Your task to perform on an android device: Open Yahoo.com Image 0: 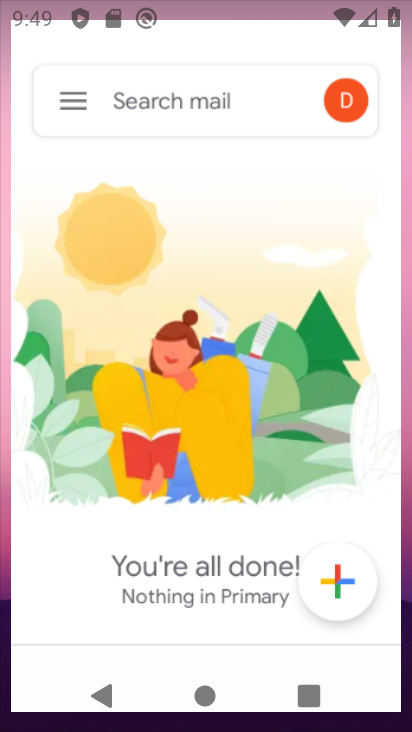
Step 0: drag from (211, 566) to (167, 2)
Your task to perform on an android device: Open Yahoo.com Image 1: 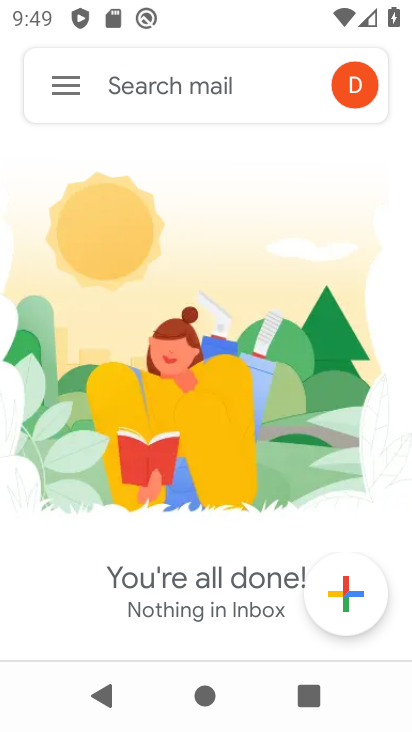
Step 1: press home button
Your task to perform on an android device: Open Yahoo.com Image 2: 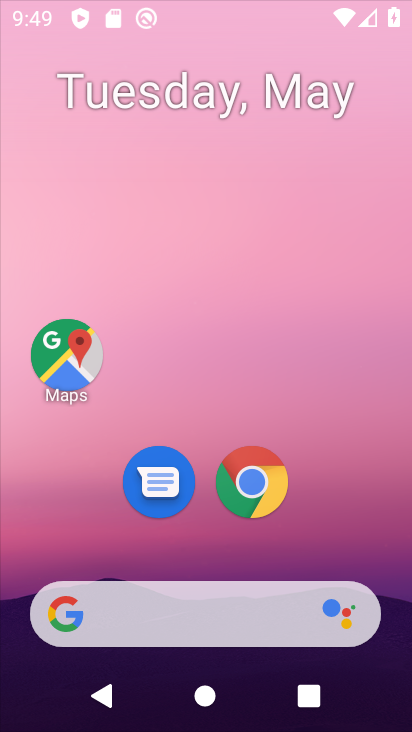
Step 2: drag from (205, 578) to (303, 132)
Your task to perform on an android device: Open Yahoo.com Image 3: 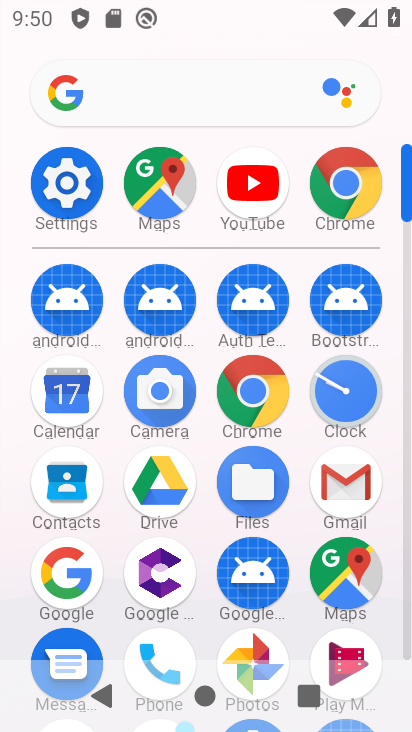
Step 3: click (182, 95)
Your task to perform on an android device: Open Yahoo.com Image 4: 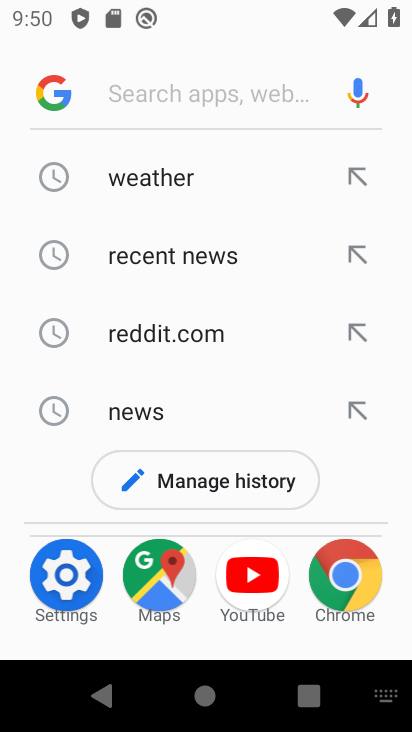
Step 4: type "yahoo"
Your task to perform on an android device: Open Yahoo.com Image 5: 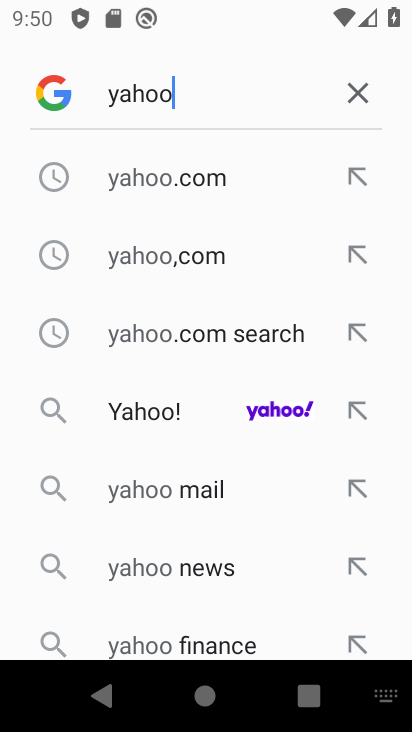
Step 5: click (220, 176)
Your task to perform on an android device: Open Yahoo.com Image 6: 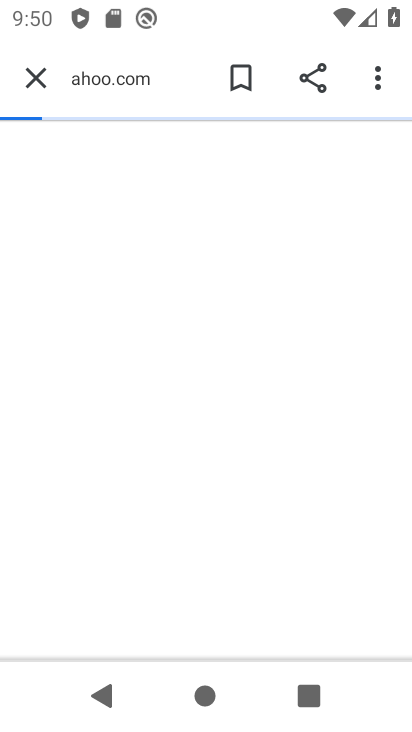
Step 6: task complete